Your task to perform on an android device: turn on sleep mode Image 0: 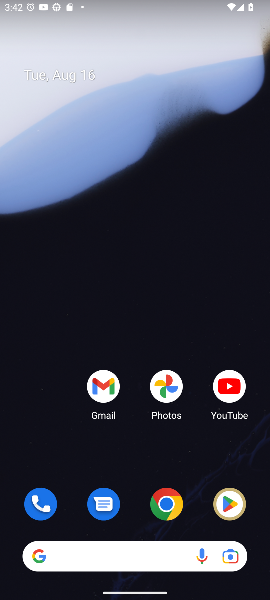
Step 0: drag from (134, 492) to (134, 128)
Your task to perform on an android device: turn on sleep mode Image 1: 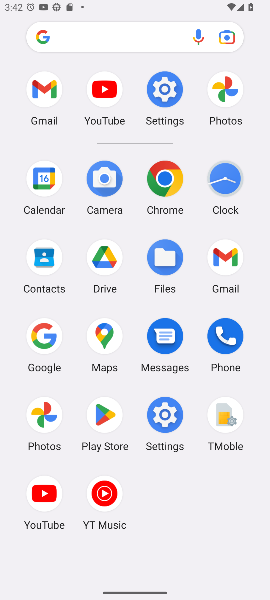
Step 1: click (163, 87)
Your task to perform on an android device: turn on sleep mode Image 2: 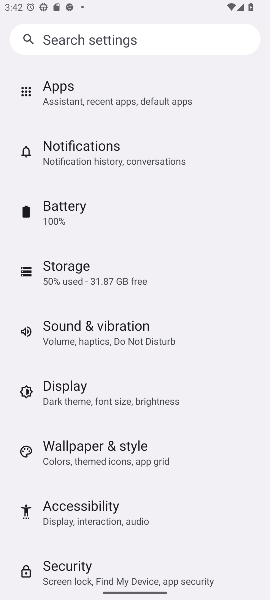
Step 2: click (68, 382)
Your task to perform on an android device: turn on sleep mode Image 3: 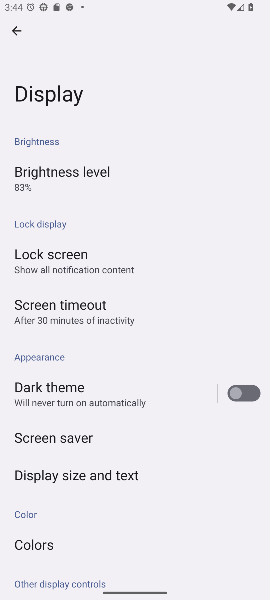
Step 3: task complete